Your task to perform on an android device: Clear all items from cart on walmart. Add logitech g910 to the cart on walmart Image 0: 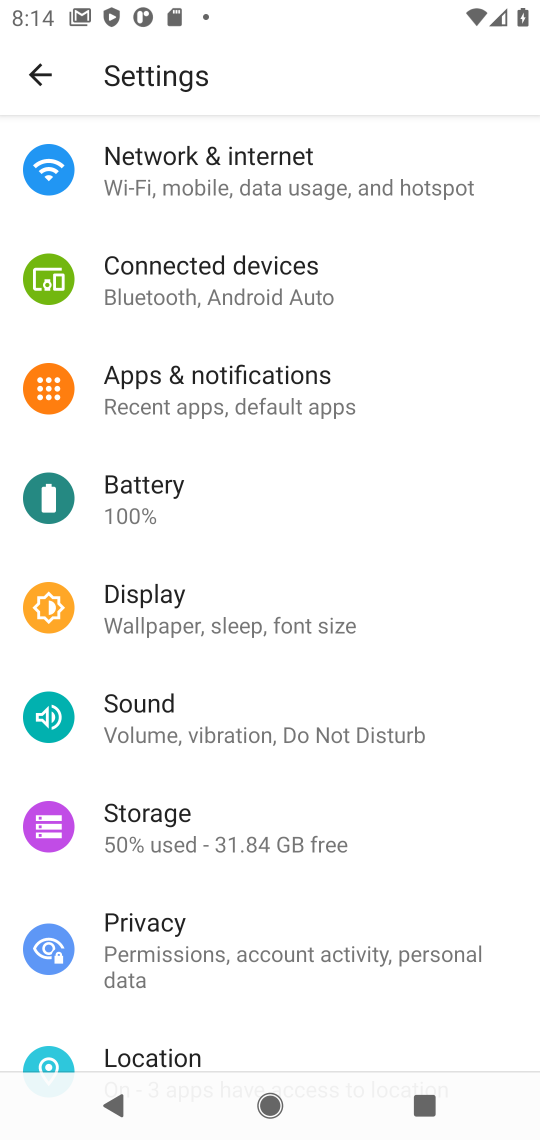
Step 0: press home button
Your task to perform on an android device: Clear all items from cart on walmart. Add logitech g910 to the cart on walmart Image 1: 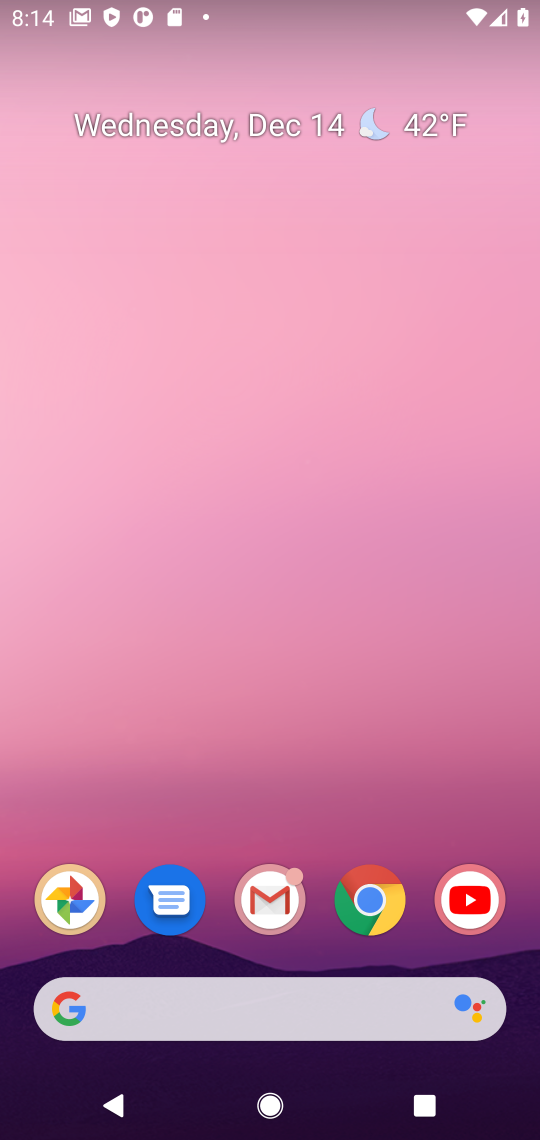
Step 1: click (382, 907)
Your task to perform on an android device: Clear all items from cart on walmart. Add logitech g910 to the cart on walmart Image 2: 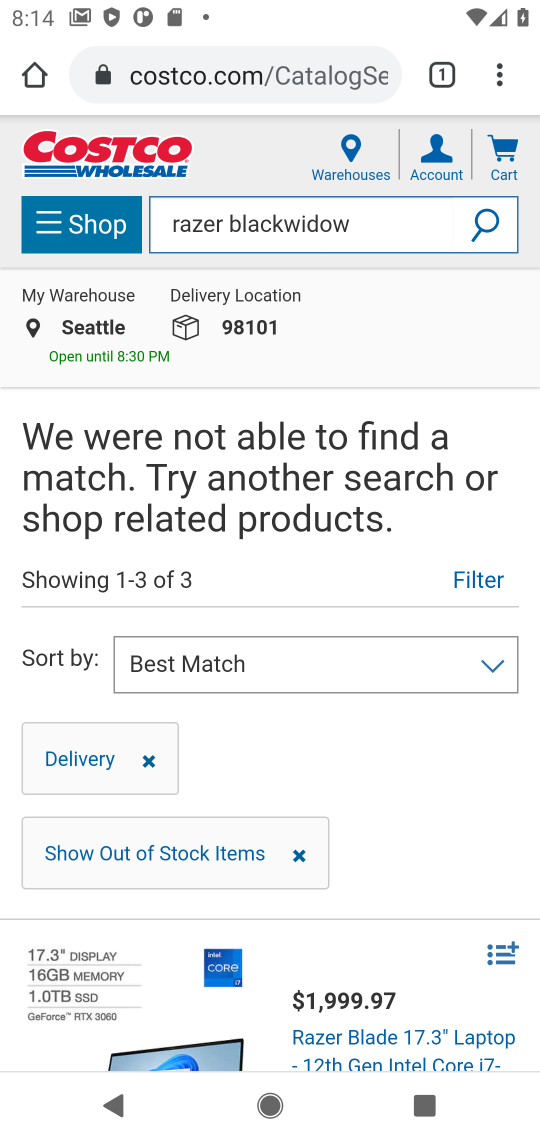
Step 2: click (261, 79)
Your task to perform on an android device: Clear all items from cart on walmart. Add logitech g910 to the cart on walmart Image 3: 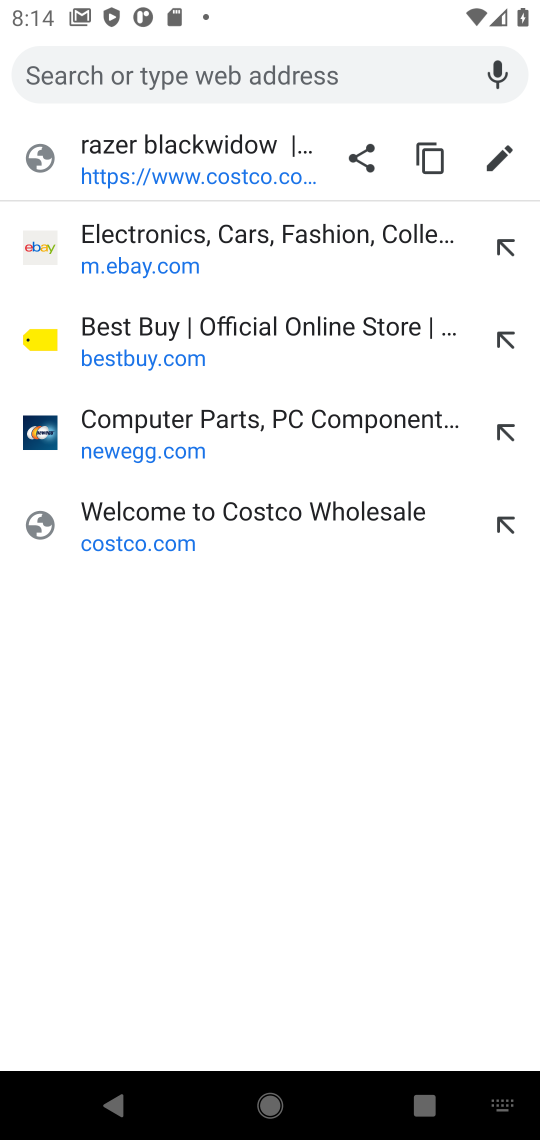
Step 3: type "walmart.com"
Your task to perform on an android device: Clear all items from cart on walmart. Add logitech g910 to the cart on walmart Image 4: 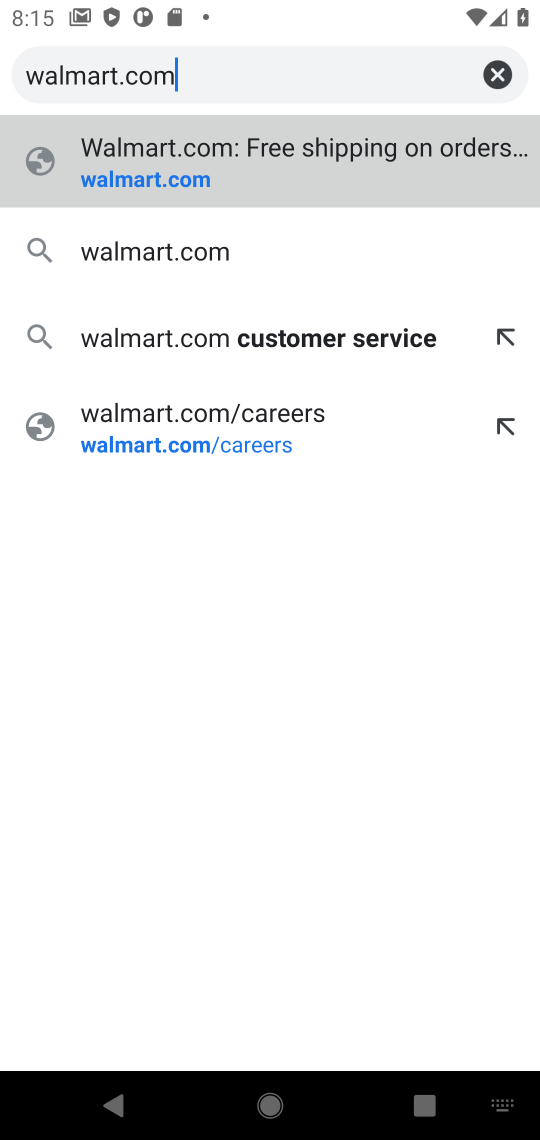
Step 4: click (161, 189)
Your task to perform on an android device: Clear all items from cart on walmart. Add logitech g910 to the cart on walmart Image 5: 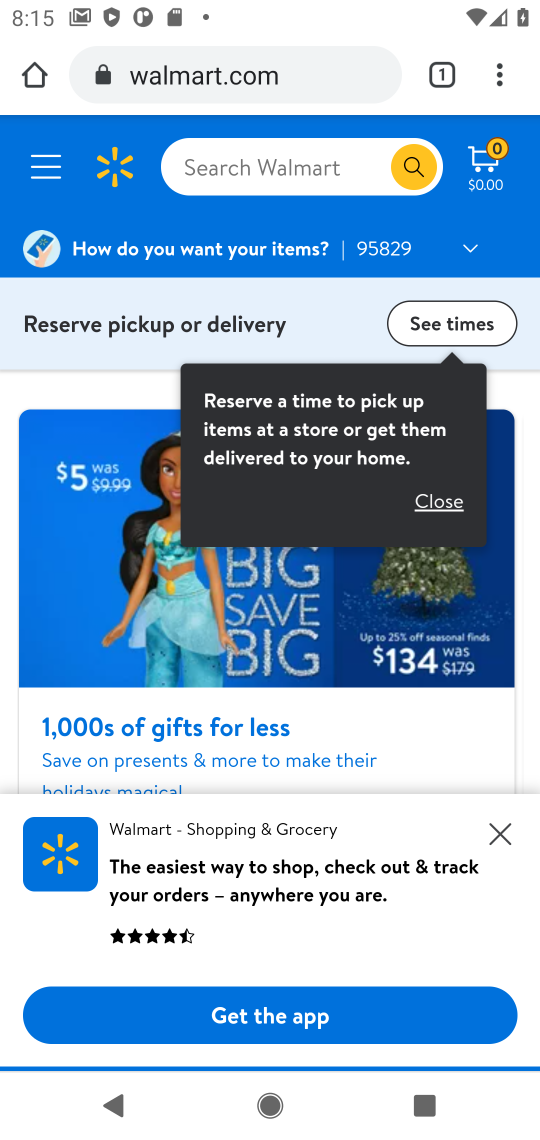
Step 5: click (485, 171)
Your task to perform on an android device: Clear all items from cart on walmart. Add logitech g910 to the cart on walmart Image 6: 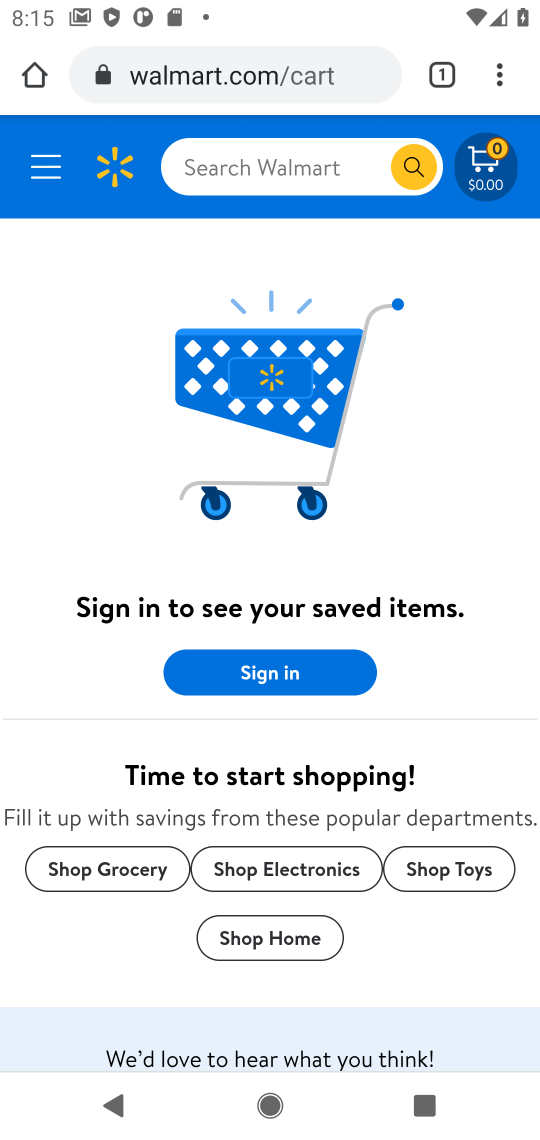
Step 6: click (237, 174)
Your task to perform on an android device: Clear all items from cart on walmart. Add logitech g910 to the cart on walmart Image 7: 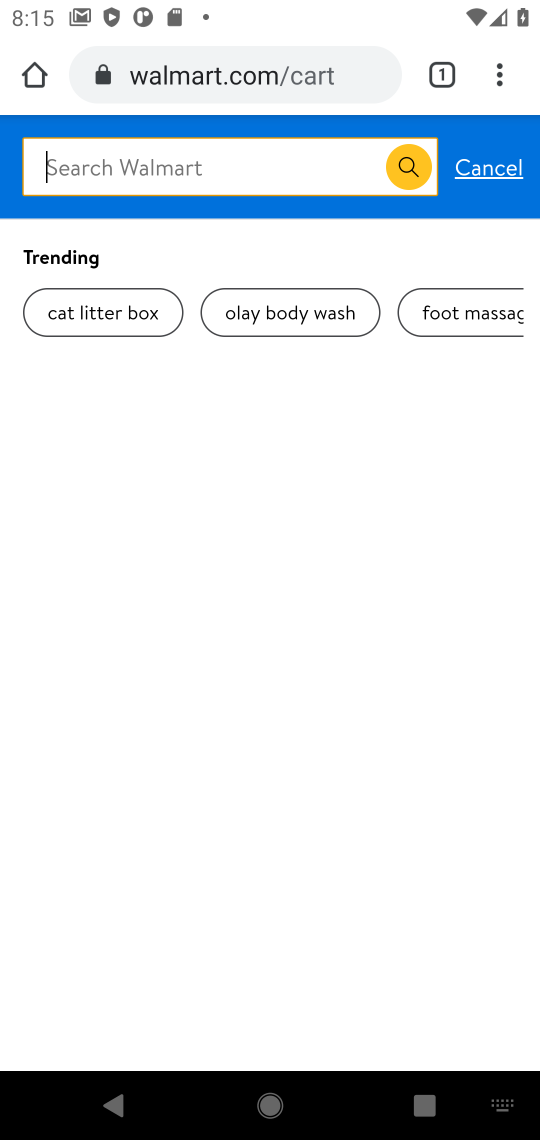
Step 7: type "logitech g910"
Your task to perform on an android device: Clear all items from cart on walmart. Add logitech g910 to the cart on walmart Image 8: 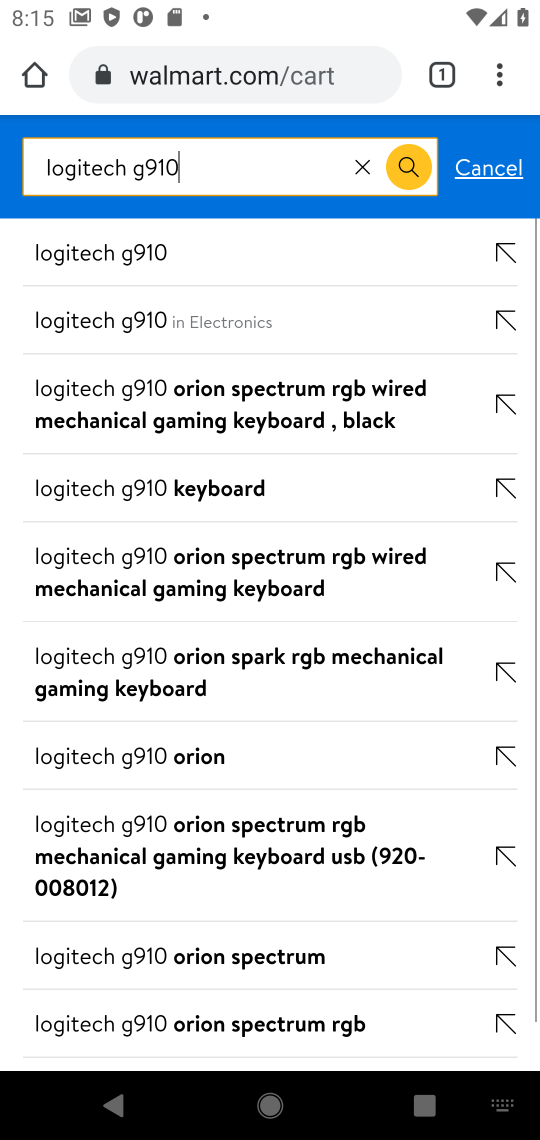
Step 8: click (128, 258)
Your task to perform on an android device: Clear all items from cart on walmart. Add logitech g910 to the cart on walmart Image 9: 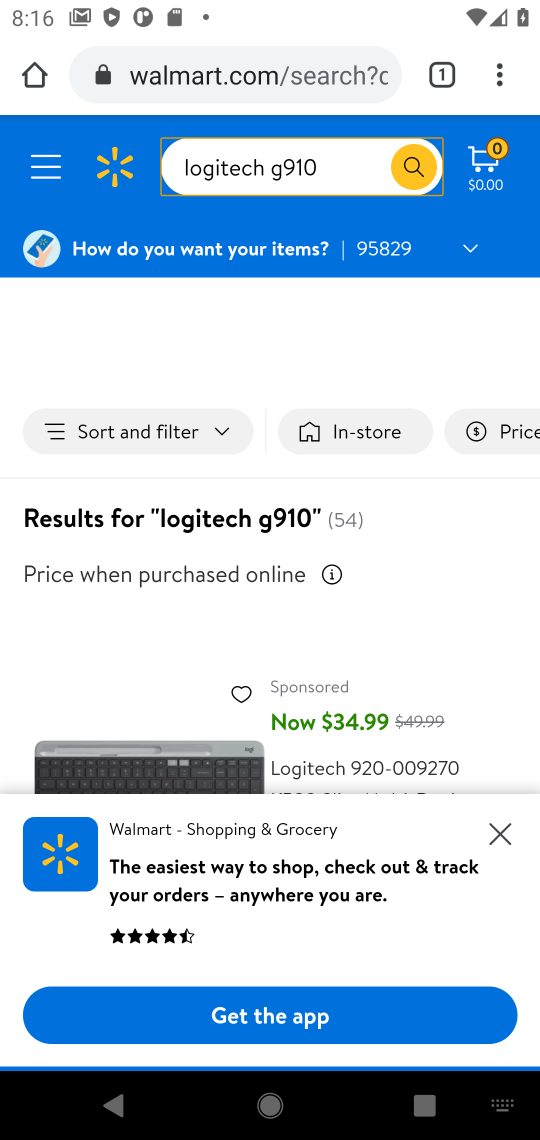
Step 9: drag from (322, 728) to (324, 402)
Your task to perform on an android device: Clear all items from cart on walmart. Add logitech g910 to the cart on walmart Image 10: 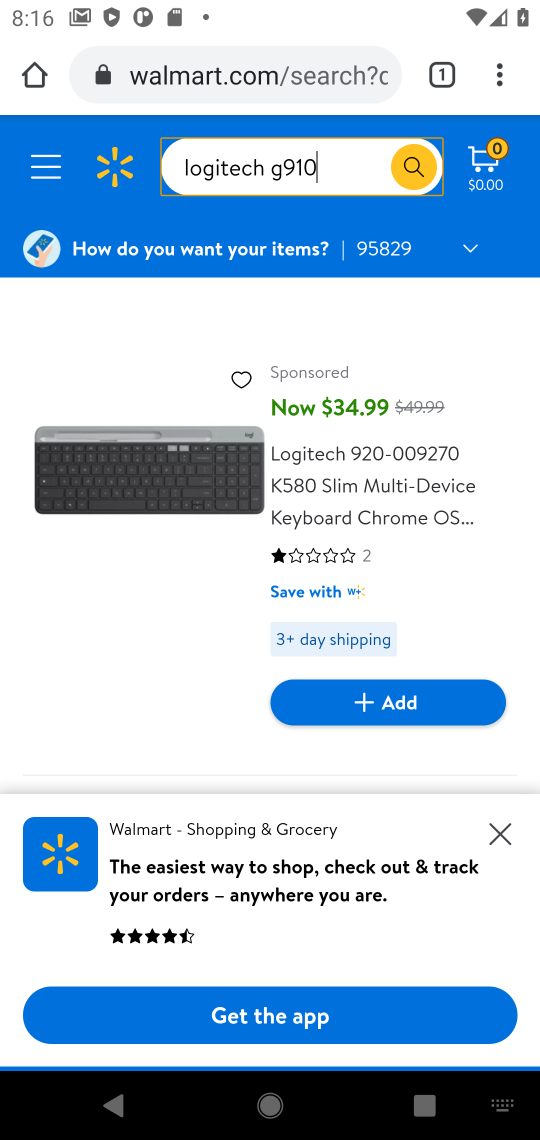
Step 10: drag from (228, 733) to (225, 386)
Your task to perform on an android device: Clear all items from cart on walmart. Add logitech g910 to the cart on walmart Image 11: 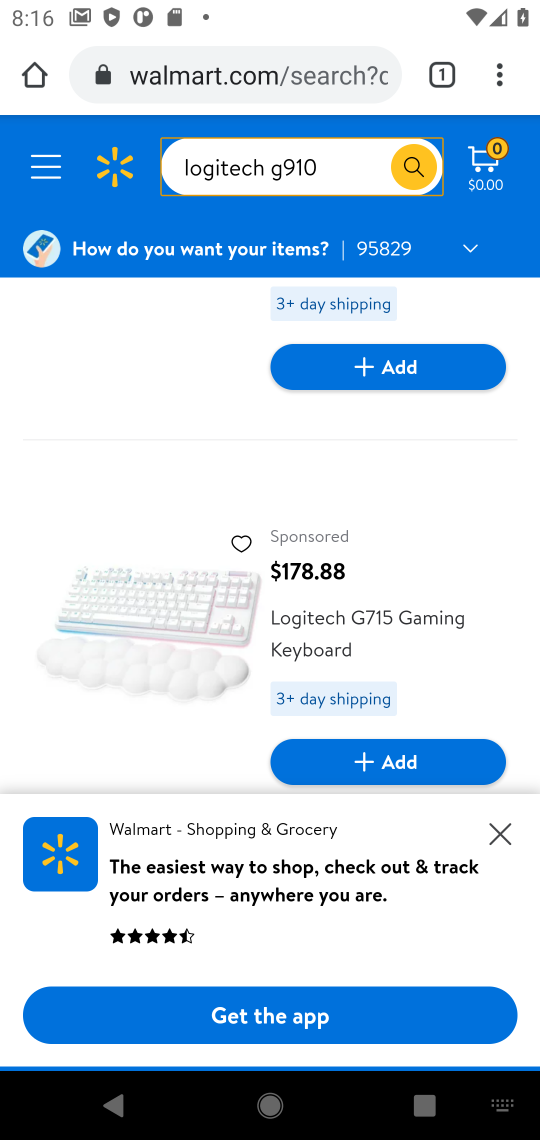
Step 11: click (502, 833)
Your task to perform on an android device: Clear all items from cart on walmart. Add logitech g910 to the cart on walmart Image 12: 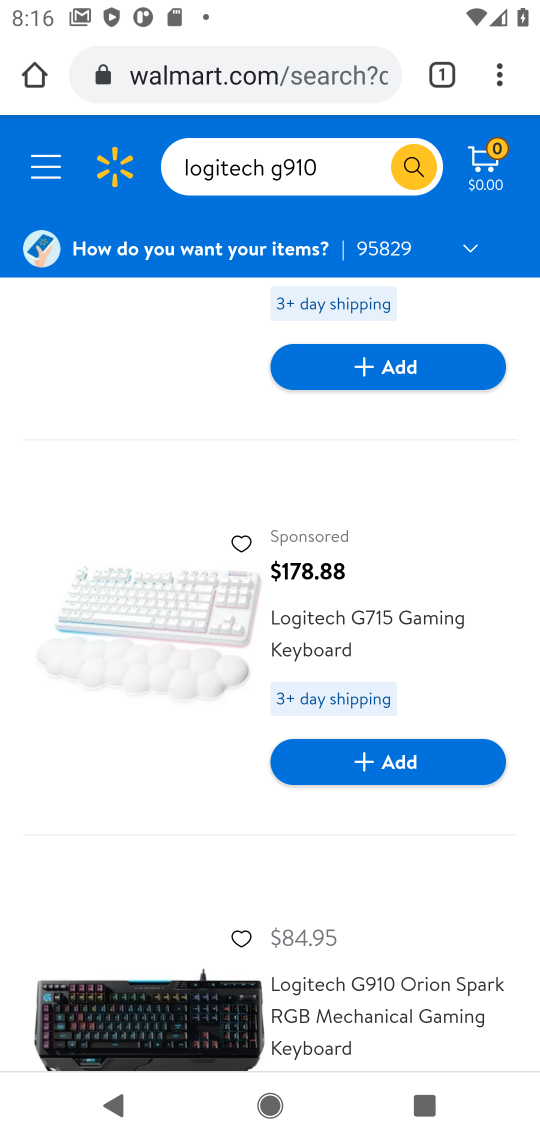
Step 12: drag from (209, 723) to (213, 397)
Your task to perform on an android device: Clear all items from cart on walmart. Add logitech g910 to the cart on walmart Image 13: 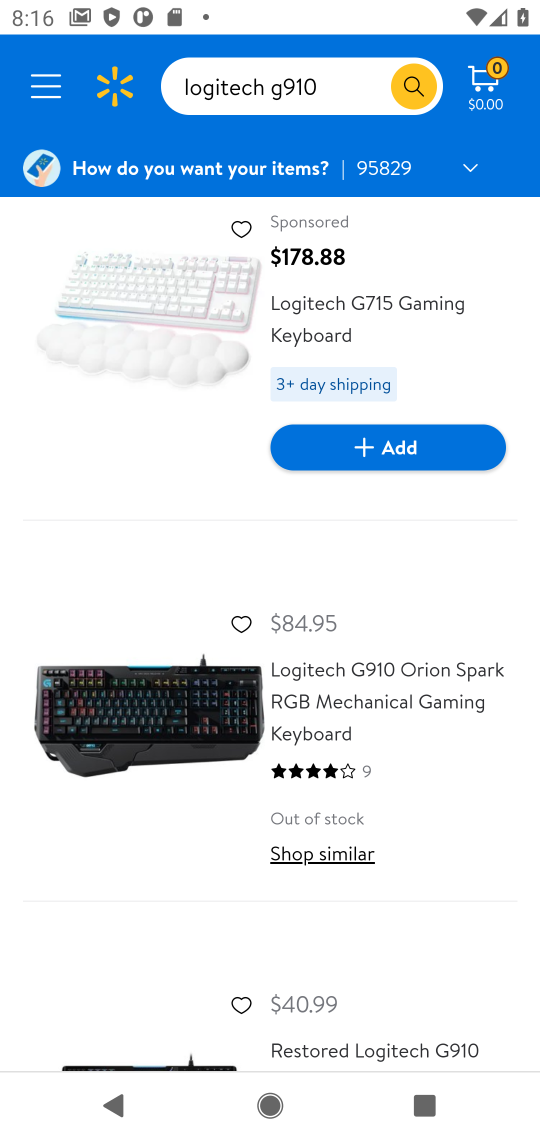
Step 13: drag from (273, 816) to (254, 297)
Your task to perform on an android device: Clear all items from cart on walmart. Add logitech g910 to the cart on walmart Image 14: 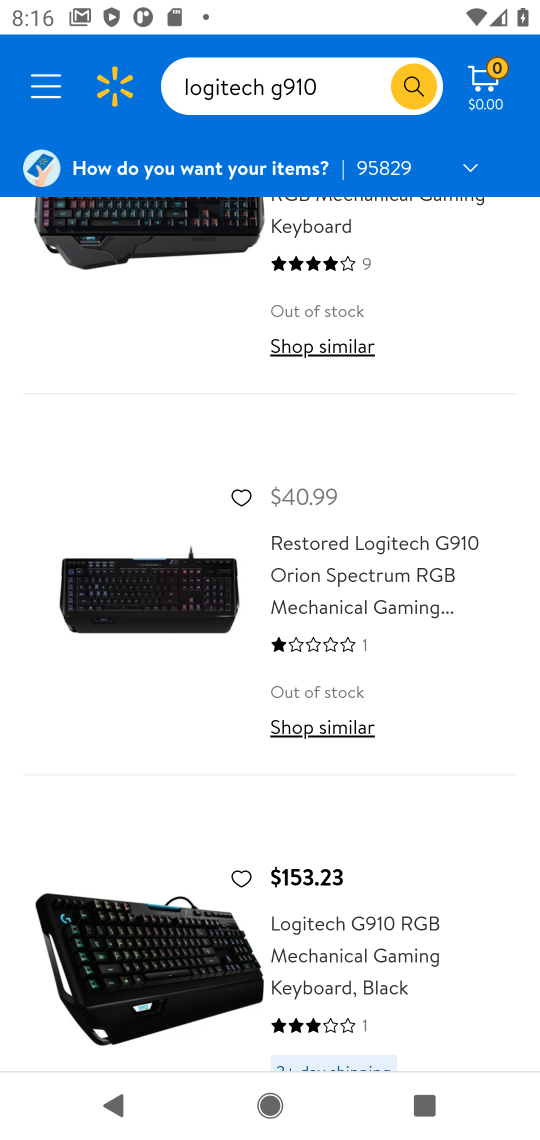
Step 14: drag from (261, 762) to (239, 317)
Your task to perform on an android device: Clear all items from cart on walmart. Add logitech g910 to the cart on walmart Image 15: 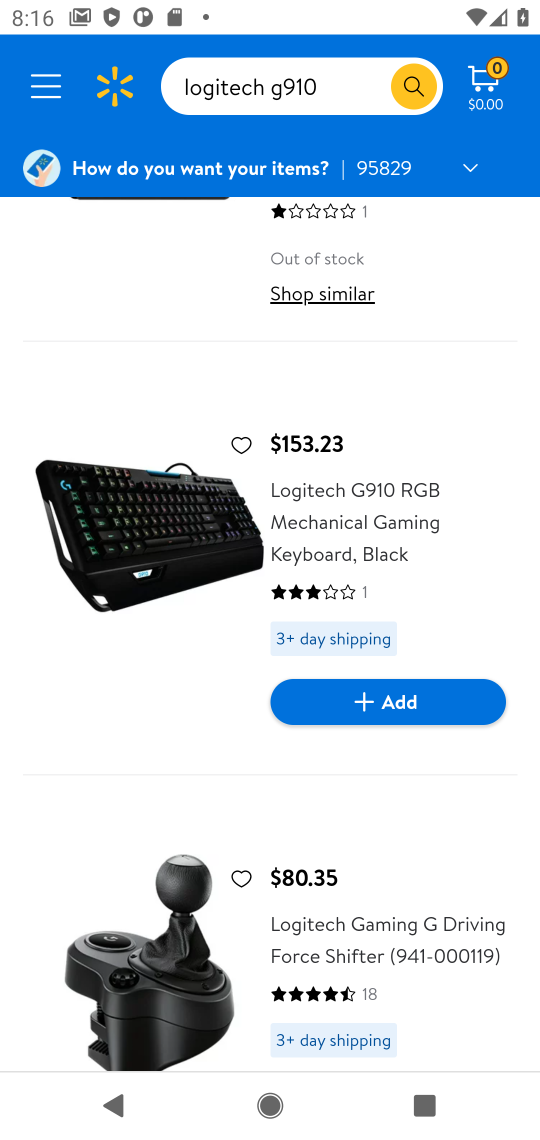
Step 15: click (367, 705)
Your task to perform on an android device: Clear all items from cart on walmart. Add logitech g910 to the cart on walmart Image 16: 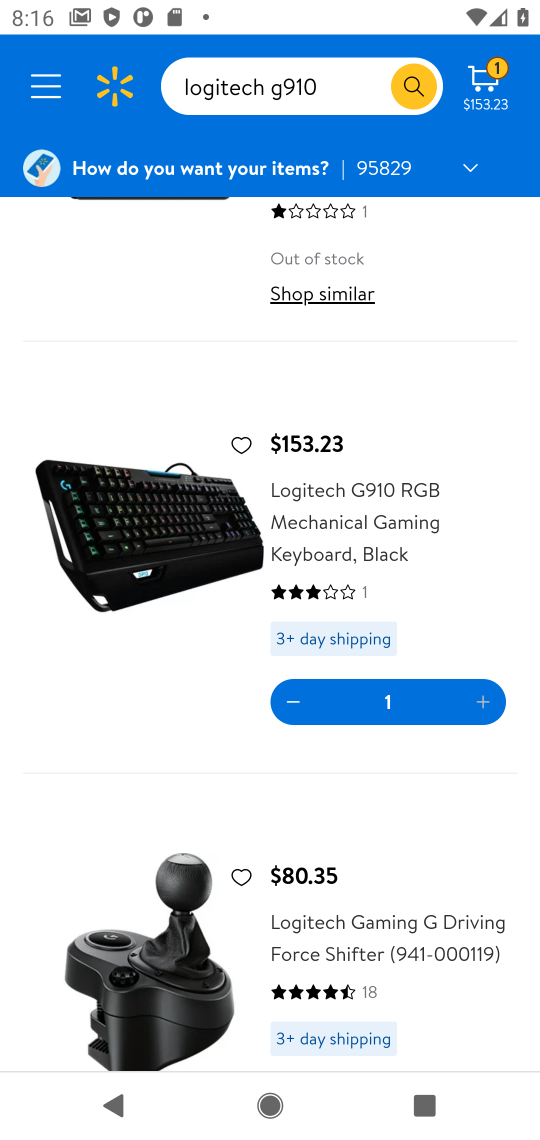
Step 16: task complete